Your task to perform on an android device: change the clock display to show seconds Image 0: 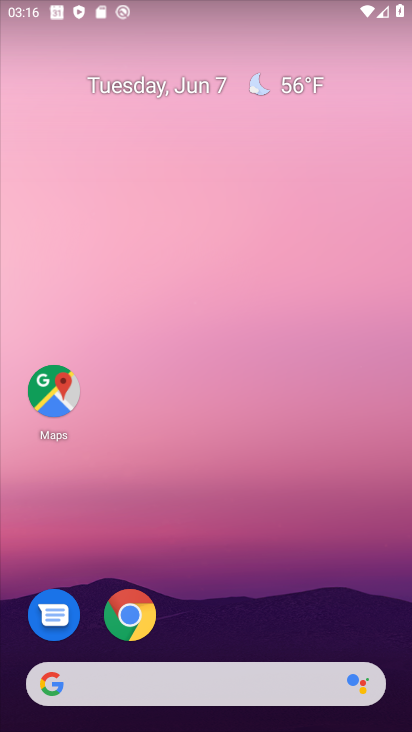
Step 0: drag from (186, 668) to (189, 389)
Your task to perform on an android device: change the clock display to show seconds Image 1: 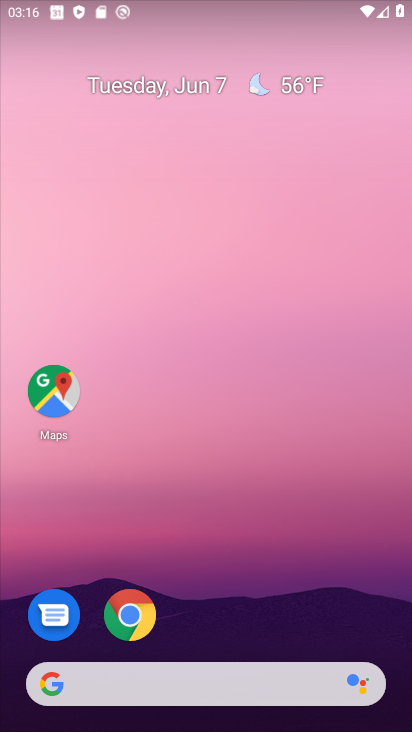
Step 1: drag from (250, 645) to (239, 249)
Your task to perform on an android device: change the clock display to show seconds Image 2: 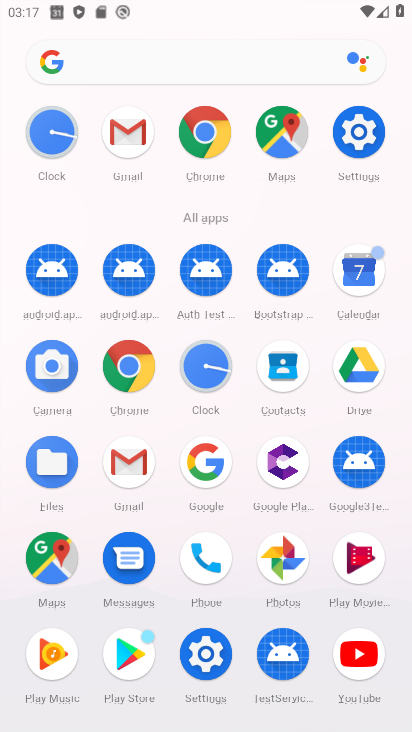
Step 2: click (216, 360)
Your task to perform on an android device: change the clock display to show seconds Image 3: 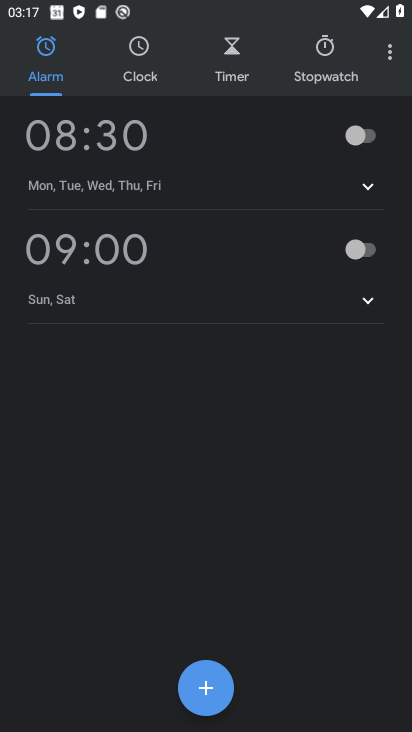
Step 3: click (389, 56)
Your task to perform on an android device: change the clock display to show seconds Image 4: 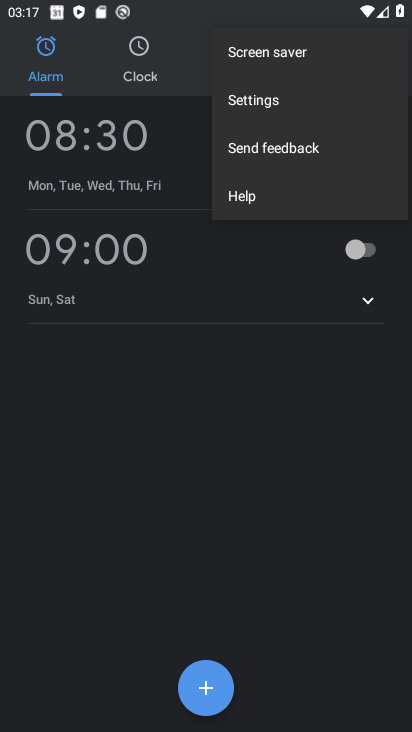
Step 4: click (288, 100)
Your task to perform on an android device: change the clock display to show seconds Image 5: 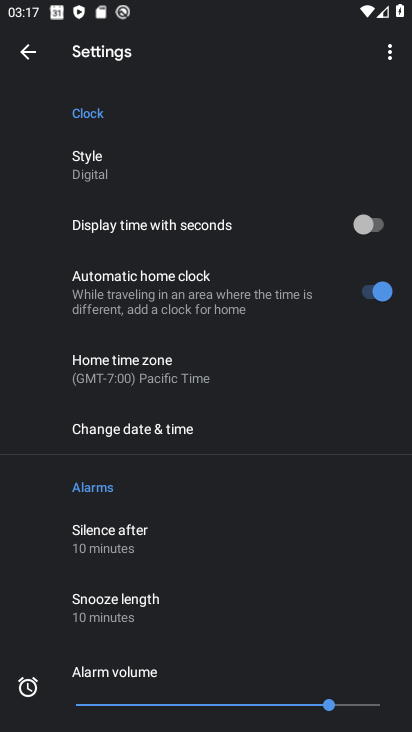
Step 5: click (384, 228)
Your task to perform on an android device: change the clock display to show seconds Image 6: 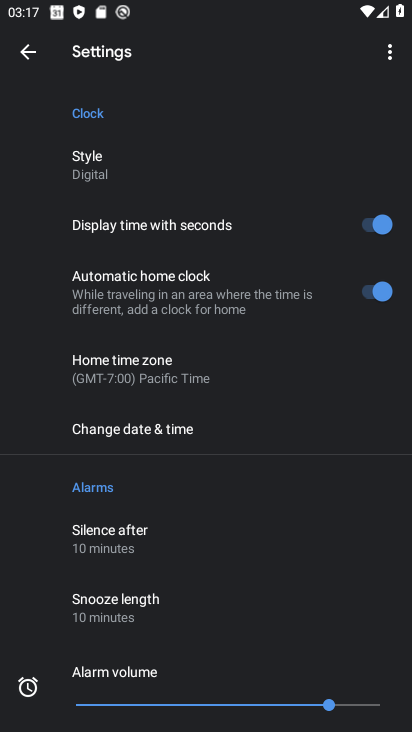
Step 6: task complete